Your task to perform on an android device: open app "Mercado Libre" (install if not already installed) Image 0: 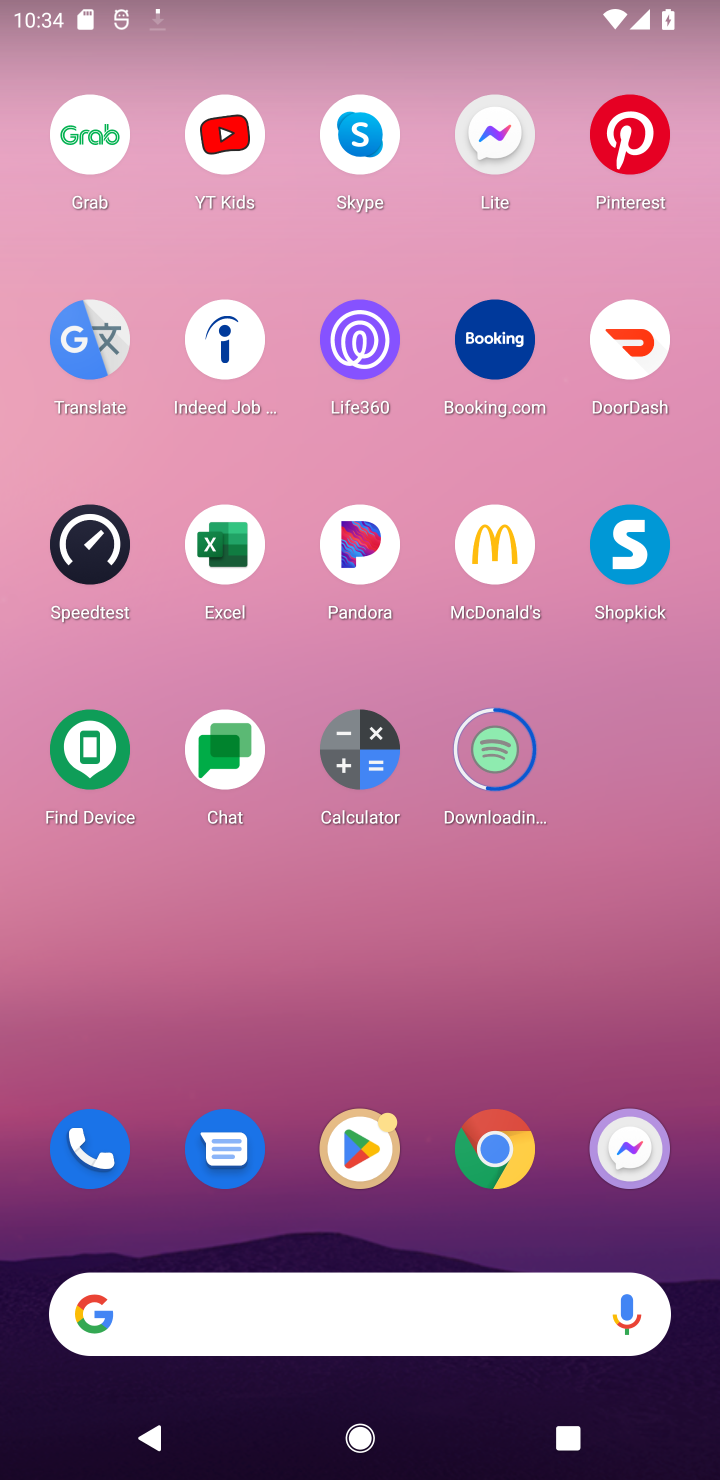
Step 0: click (341, 1161)
Your task to perform on an android device: open app "Mercado Libre" (install if not already installed) Image 1: 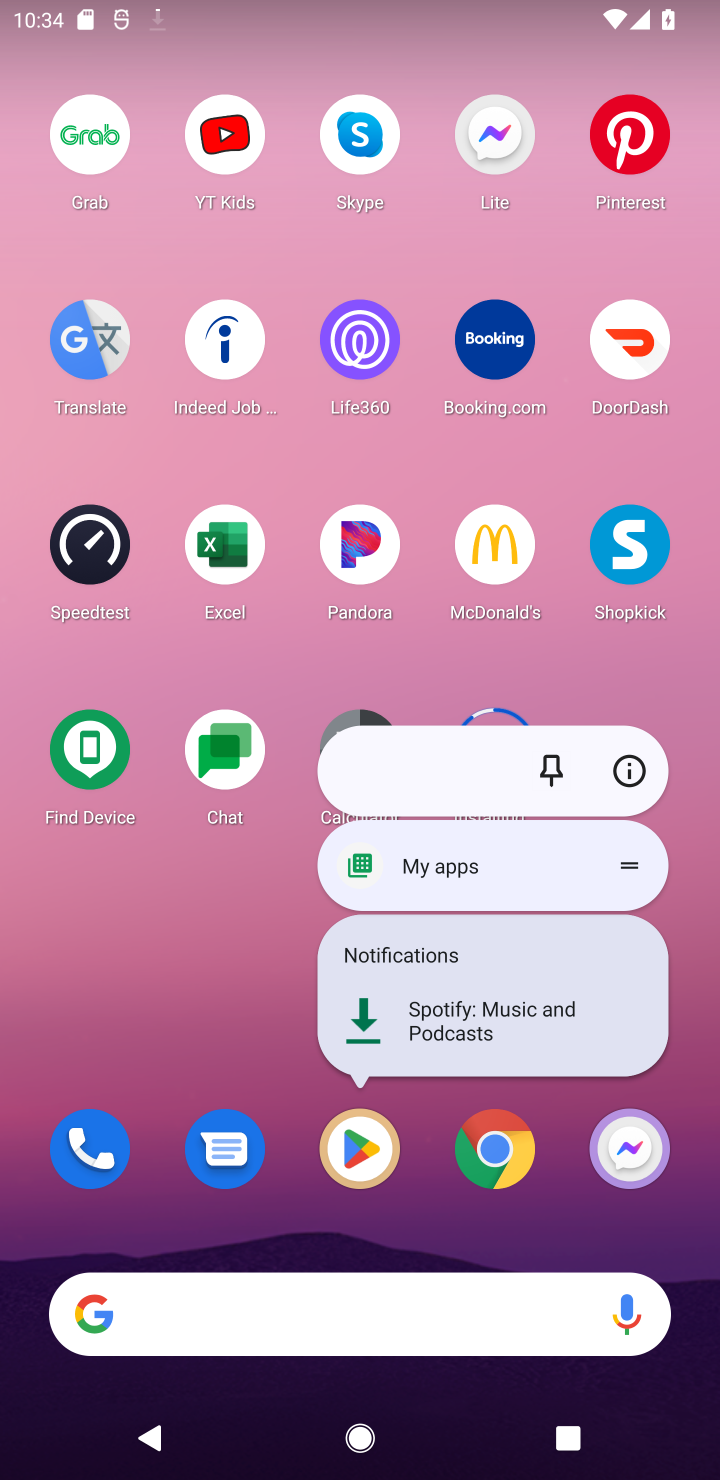
Step 1: click (350, 1170)
Your task to perform on an android device: open app "Mercado Libre" (install if not already installed) Image 2: 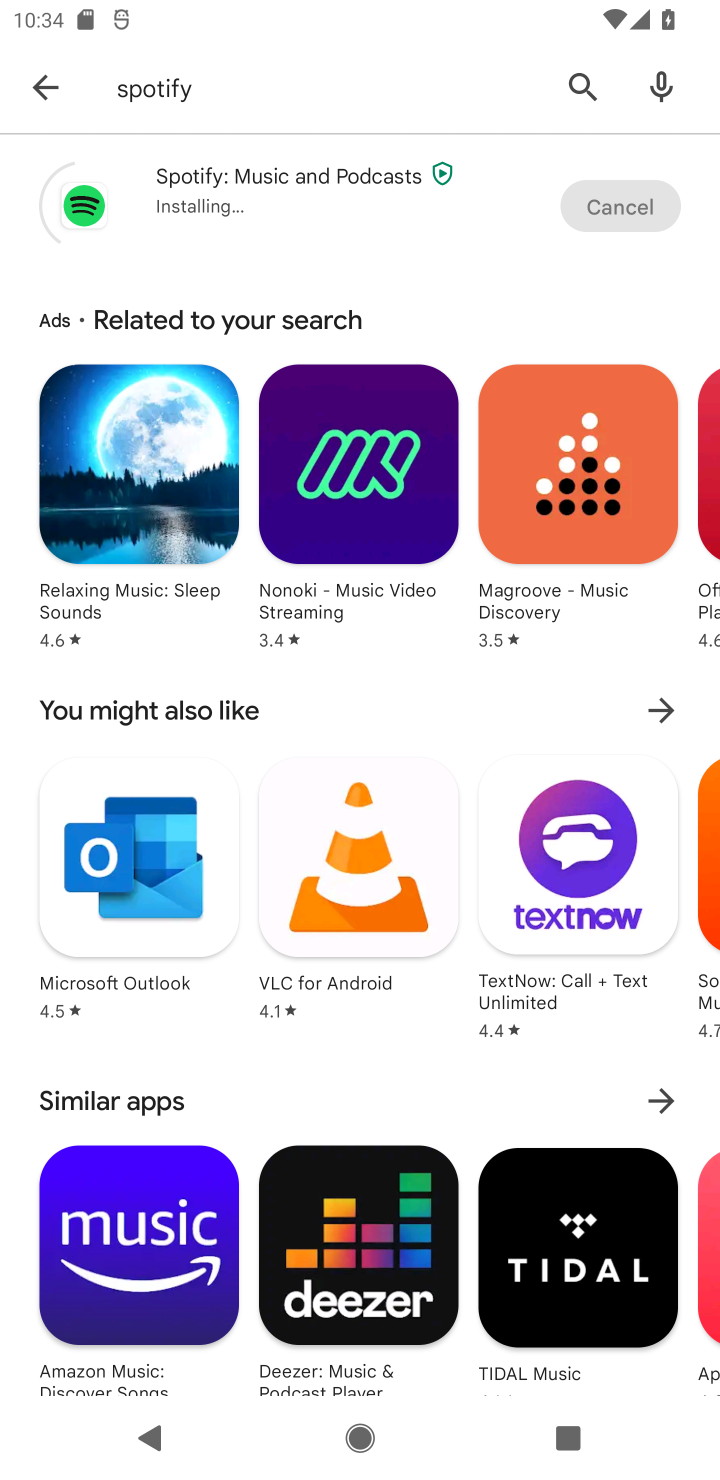
Step 2: click (556, 94)
Your task to perform on an android device: open app "Mercado Libre" (install if not already installed) Image 3: 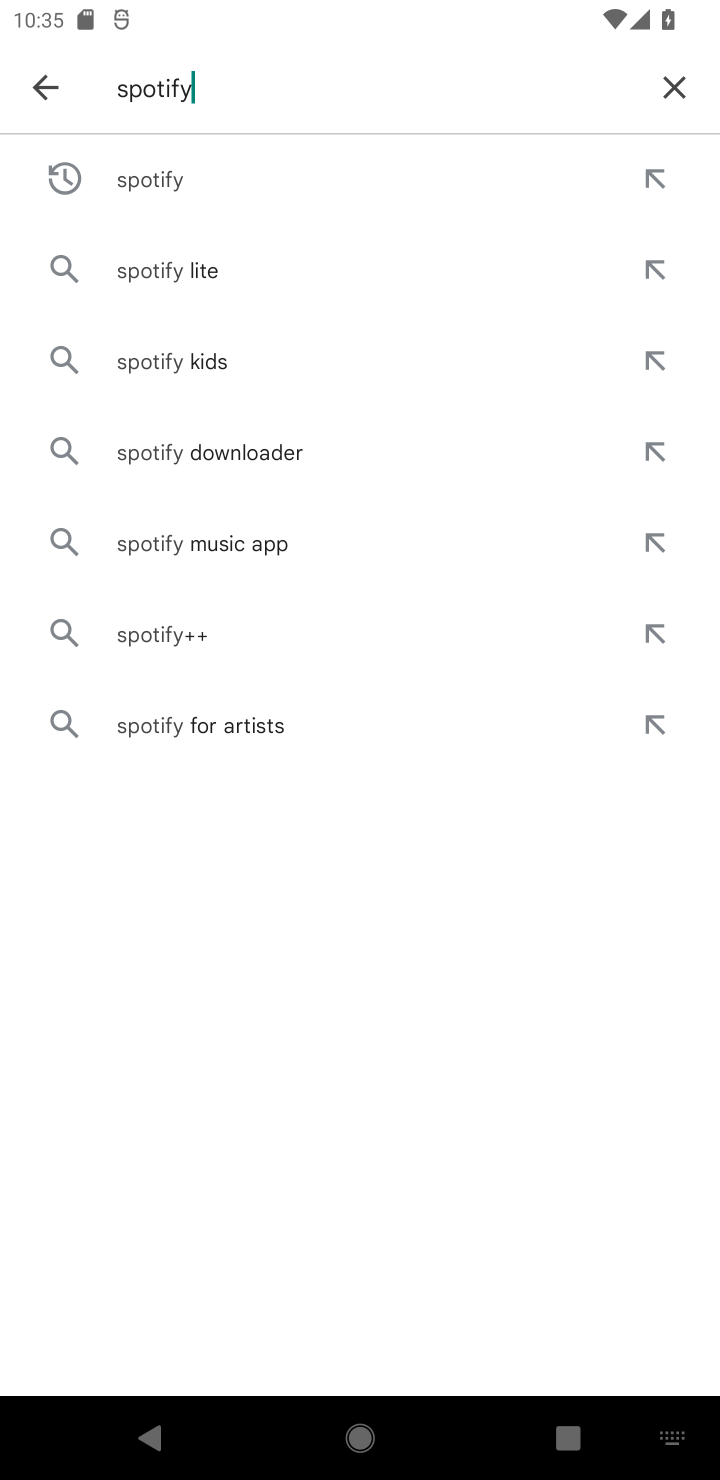
Step 3: click (680, 99)
Your task to perform on an android device: open app "Mercado Libre" (install if not already installed) Image 4: 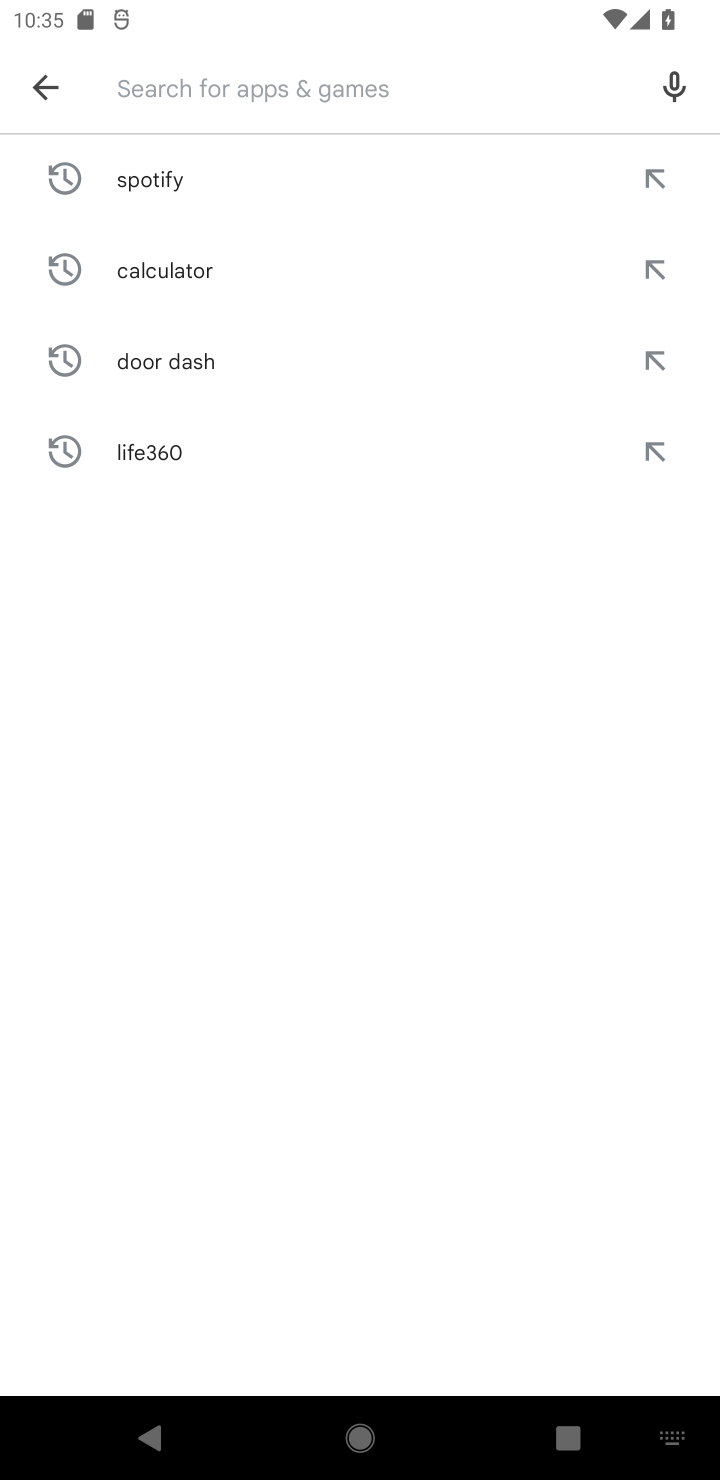
Step 4: type "mercado"
Your task to perform on an android device: open app "Mercado Libre" (install if not already installed) Image 5: 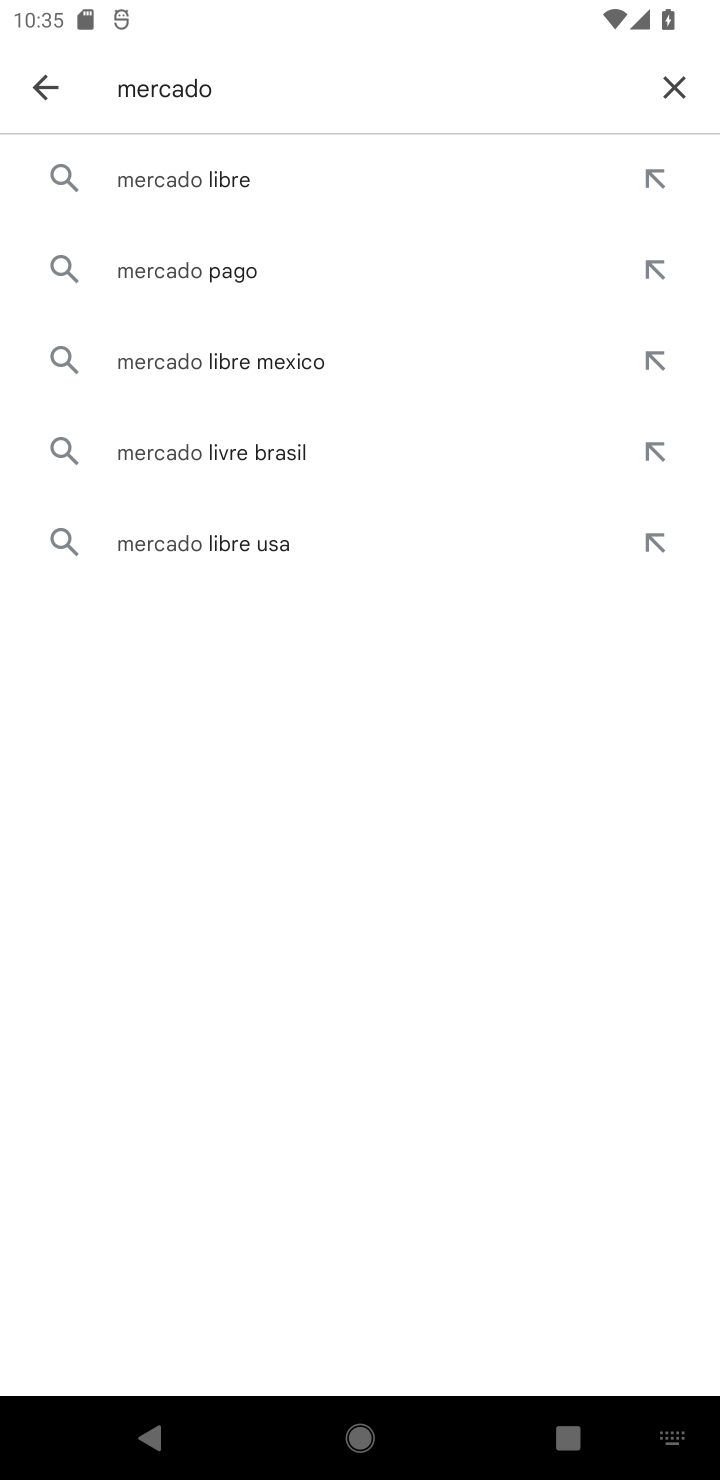
Step 5: click (215, 157)
Your task to perform on an android device: open app "Mercado Libre" (install if not already installed) Image 6: 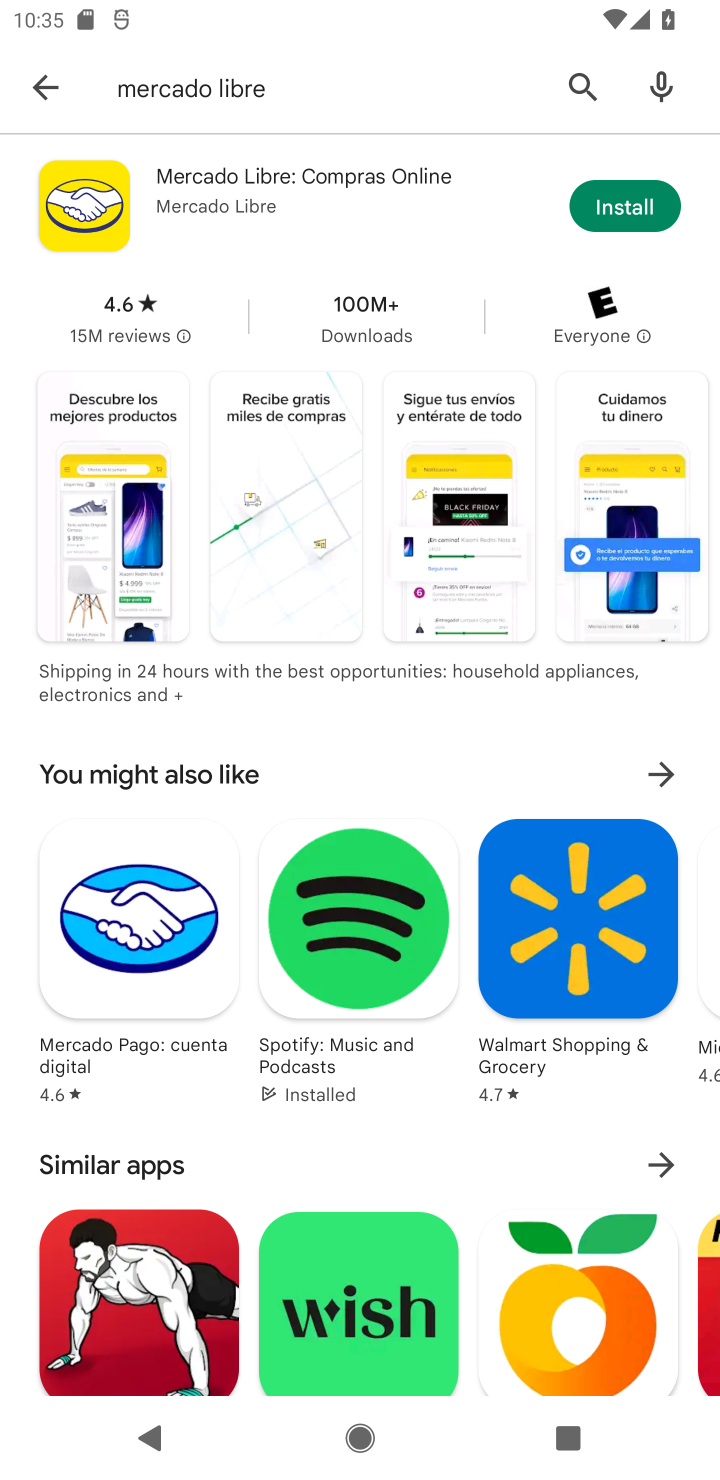
Step 6: click (596, 217)
Your task to perform on an android device: open app "Mercado Libre" (install if not already installed) Image 7: 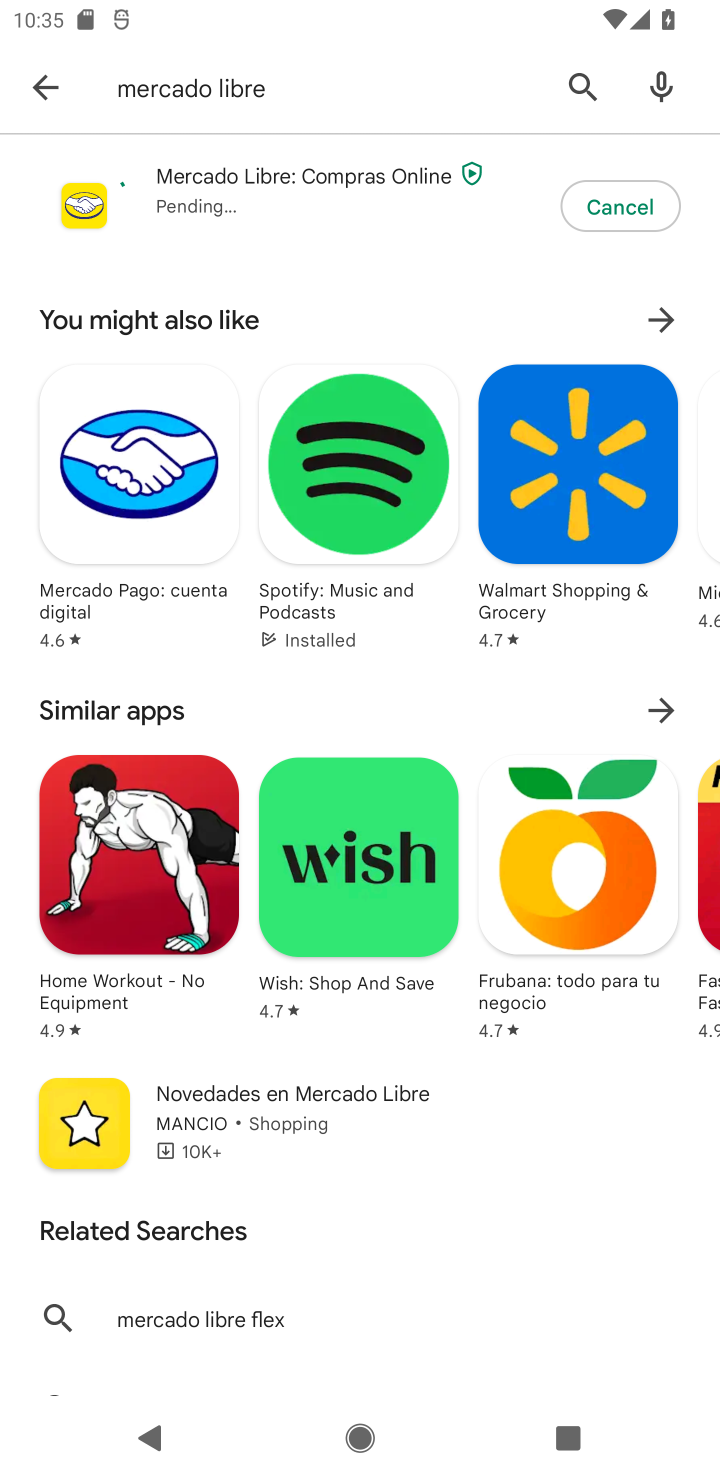
Step 7: task complete